Your task to perform on an android device: Open sound settings Image 0: 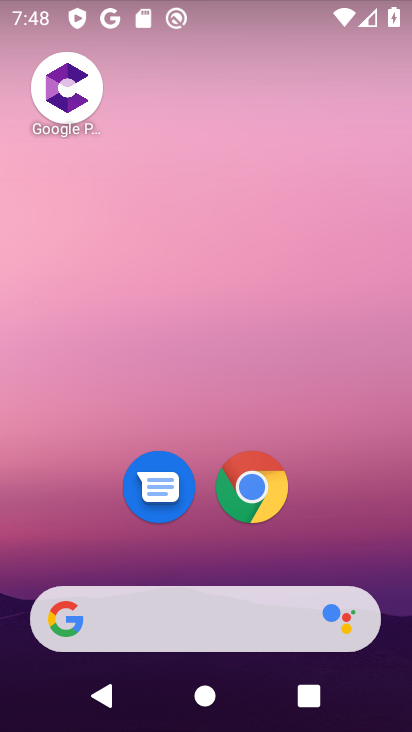
Step 0: drag from (208, 726) to (221, 104)
Your task to perform on an android device: Open sound settings Image 1: 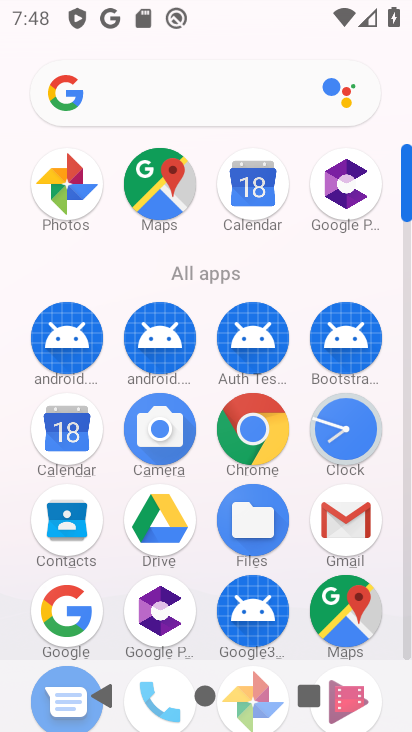
Step 1: drag from (211, 572) to (208, 170)
Your task to perform on an android device: Open sound settings Image 2: 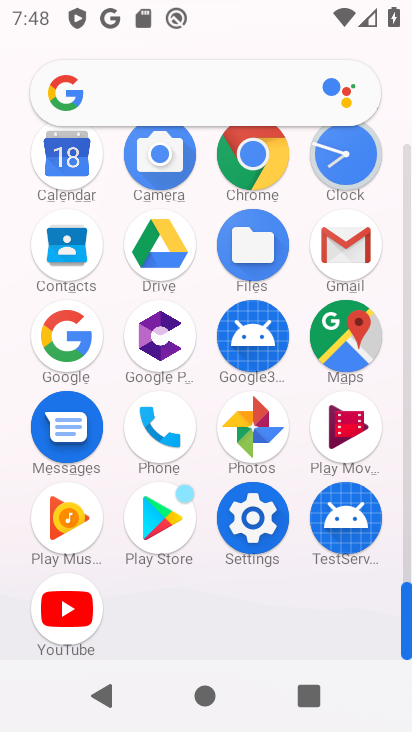
Step 2: click (252, 514)
Your task to perform on an android device: Open sound settings Image 3: 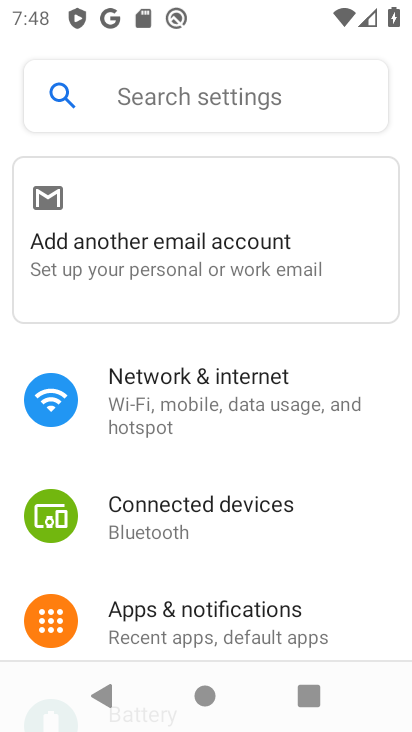
Step 3: drag from (215, 584) to (220, 192)
Your task to perform on an android device: Open sound settings Image 4: 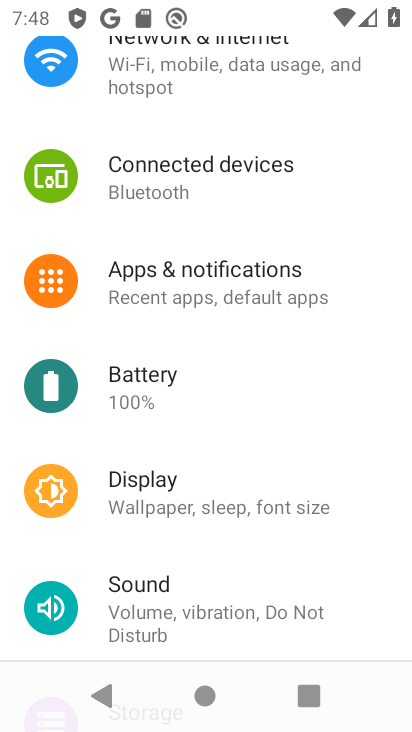
Step 4: drag from (238, 585) to (239, 265)
Your task to perform on an android device: Open sound settings Image 5: 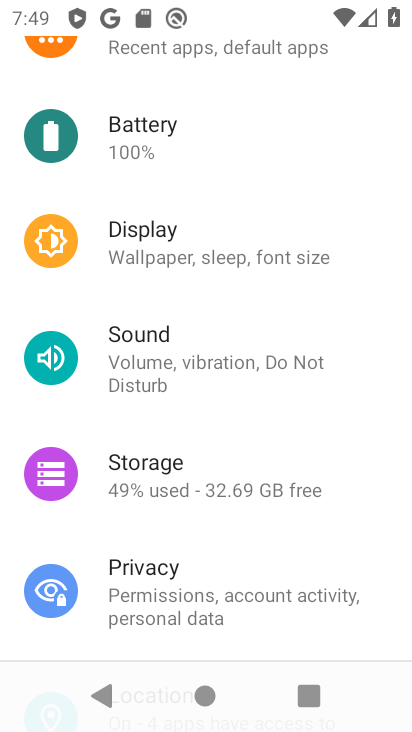
Step 5: click (161, 355)
Your task to perform on an android device: Open sound settings Image 6: 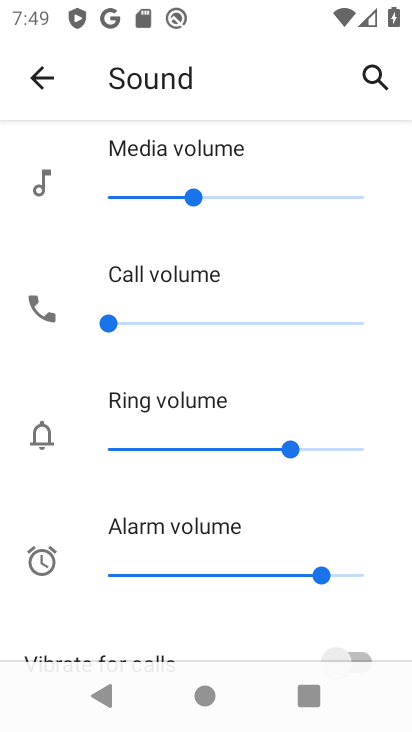
Step 6: task complete